Your task to perform on an android device: Open network settings Image 0: 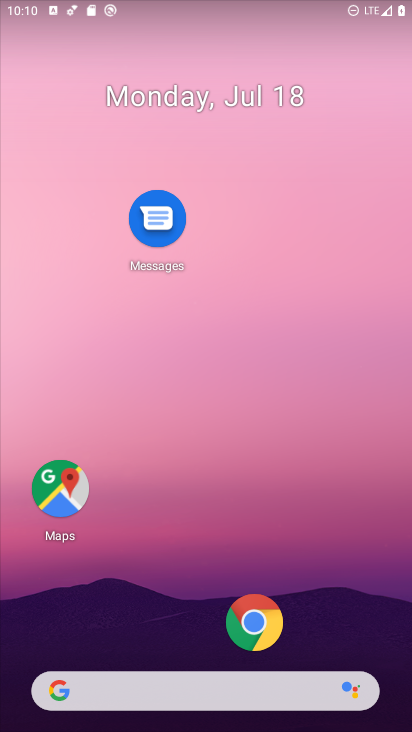
Step 0: drag from (229, 717) to (290, 327)
Your task to perform on an android device: Open network settings Image 1: 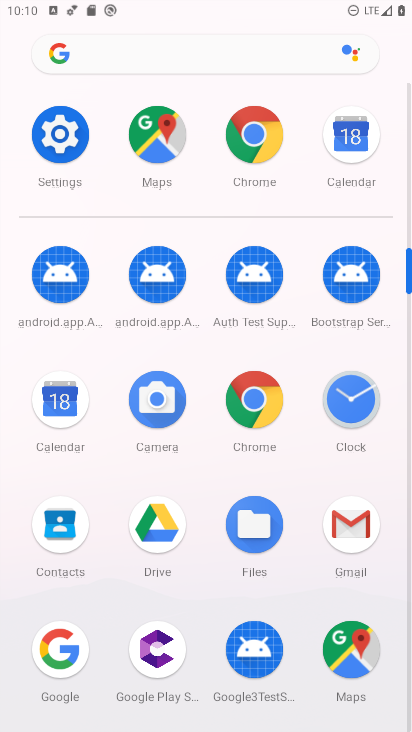
Step 1: click (61, 129)
Your task to perform on an android device: Open network settings Image 2: 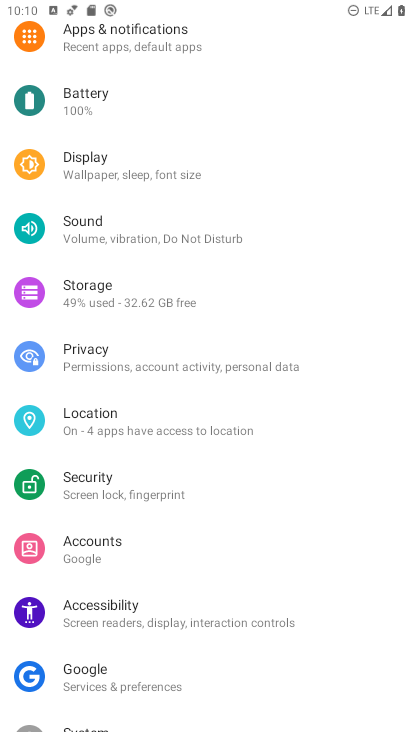
Step 2: drag from (164, 269) to (173, 606)
Your task to perform on an android device: Open network settings Image 3: 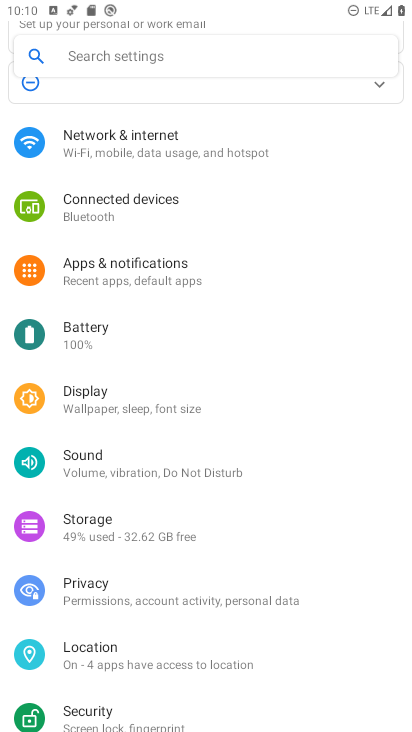
Step 3: click (212, 154)
Your task to perform on an android device: Open network settings Image 4: 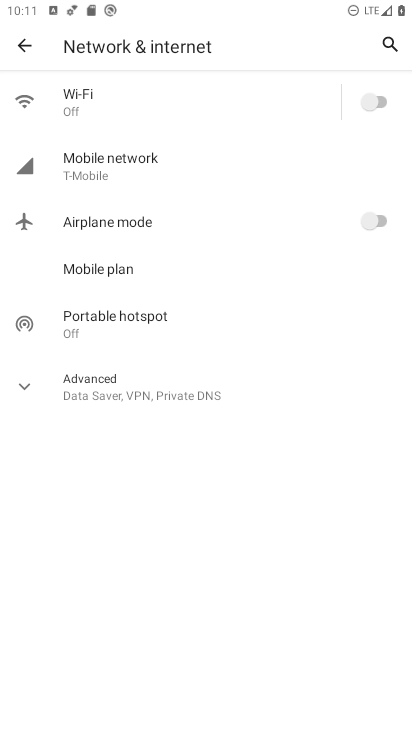
Step 4: click (117, 170)
Your task to perform on an android device: Open network settings Image 5: 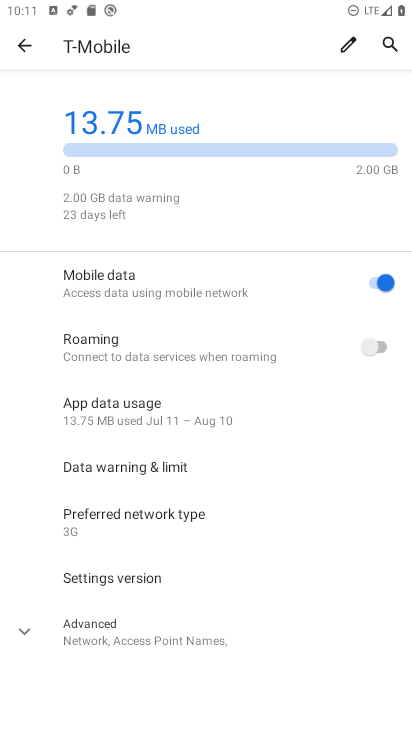
Step 5: task complete